Your task to perform on an android device: turn off priority inbox in the gmail app Image 0: 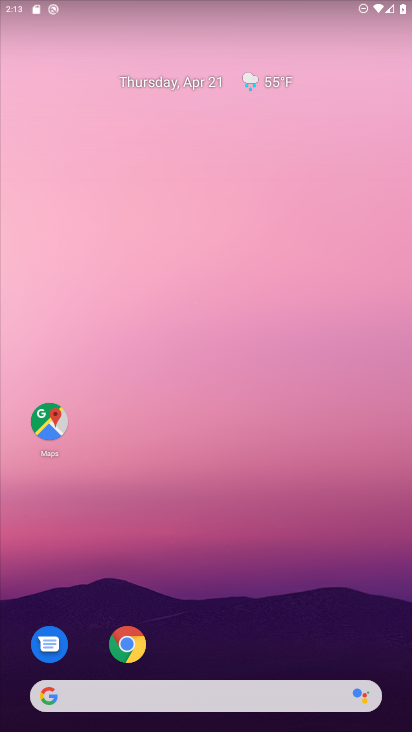
Step 0: drag from (240, 603) to (187, 156)
Your task to perform on an android device: turn off priority inbox in the gmail app Image 1: 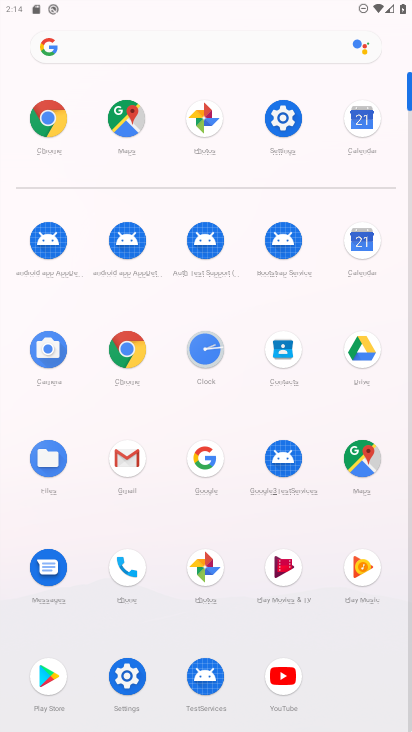
Step 1: click (138, 467)
Your task to perform on an android device: turn off priority inbox in the gmail app Image 2: 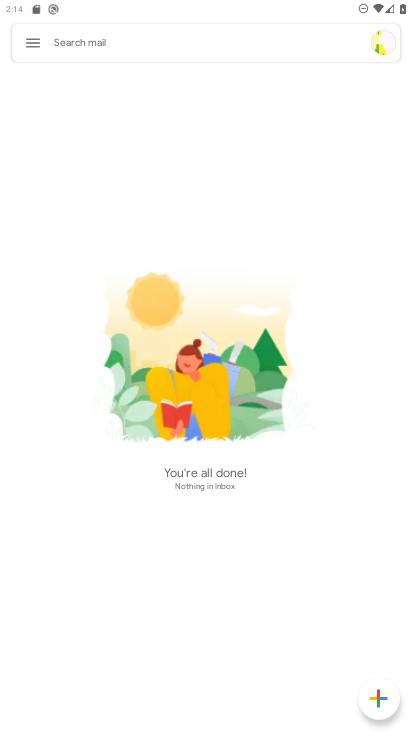
Step 2: click (34, 43)
Your task to perform on an android device: turn off priority inbox in the gmail app Image 3: 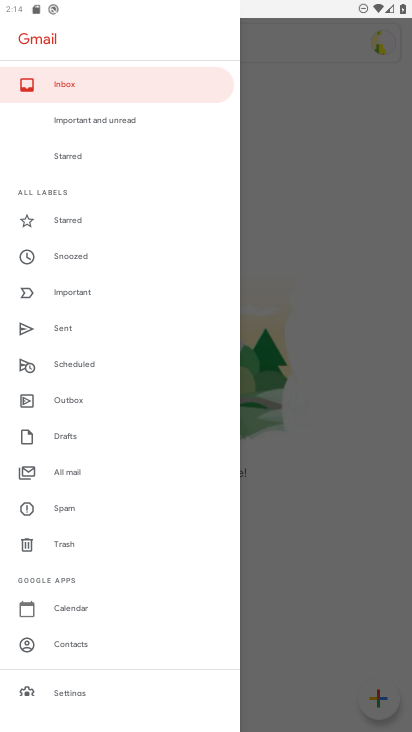
Step 3: click (110, 689)
Your task to perform on an android device: turn off priority inbox in the gmail app Image 4: 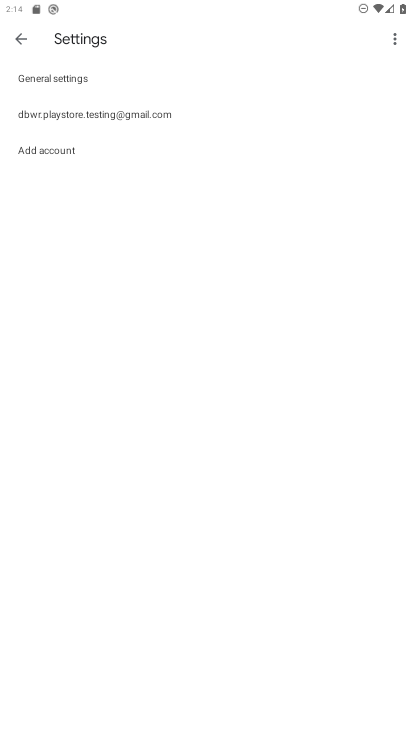
Step 4: click (187, 111)
Your task to perform on an android device: turn off priority inbox in the gmail app Image 5: 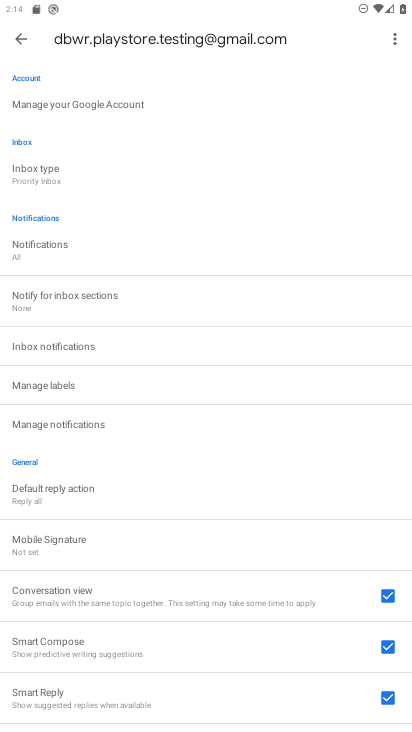
Step 5: click (183, 177)
Your task to perform on an android device: turn off priority inbox in the gmail app Image 6: 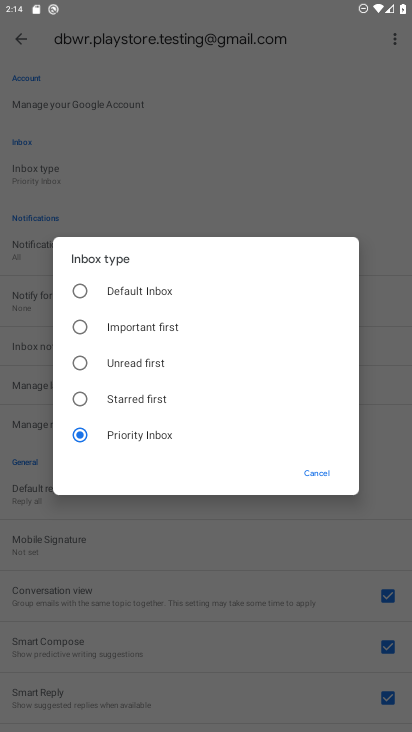
Step 6: click (162, 283)
Your task to perform on an android device: turn off priority inbox in the gmail app Image 7: 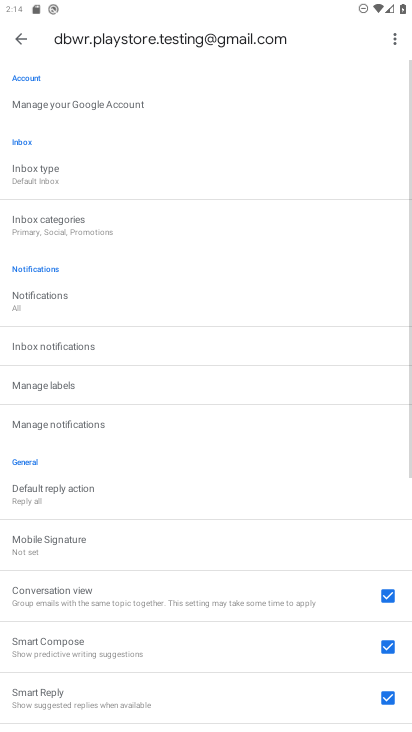
Step 7: task complete